Your task to perform on an android device: Search for vegetarian restaurants on Maps Image 0: 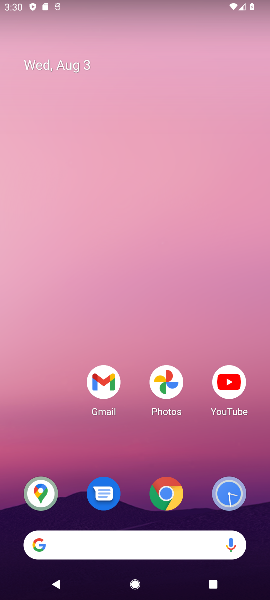
Step 0: drag from (79, 449) to (113, 116)
Your task to perform on an android device: Search for vegetarian restaurants on Maps Image 1: 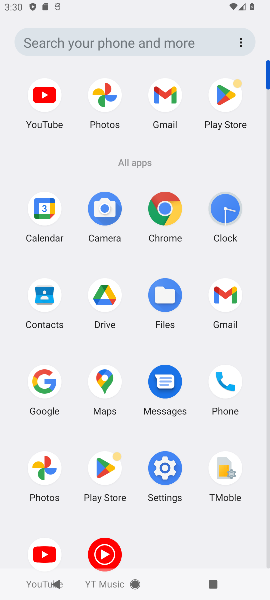
Step 1: click (96, 387)
Your task to perform on an android device: Search for vegetarian restaurants on Maps Image 2: 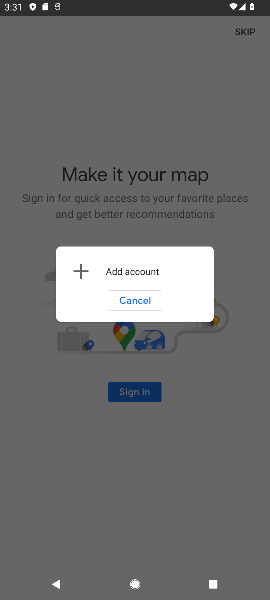
Step 2: task complete